Your task to perform on an android device: Go to eBay Image 0: 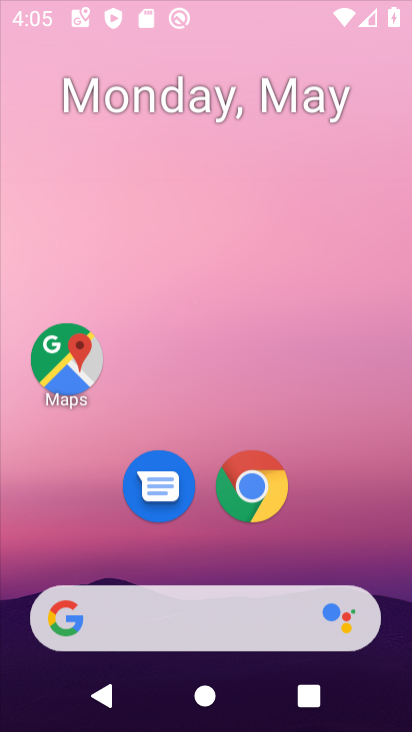
Step 0: click (174, 172)
Your task to perform on an android device: Go to eBay Image 1: 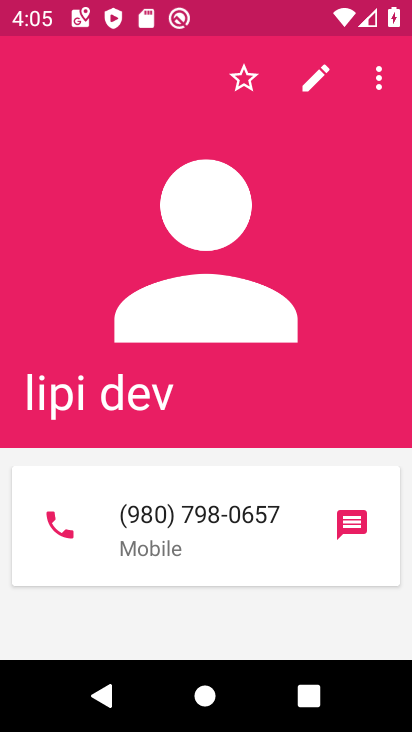
Step 1: press home button
Your task to perform on an android device: Go to eBay Image 2: 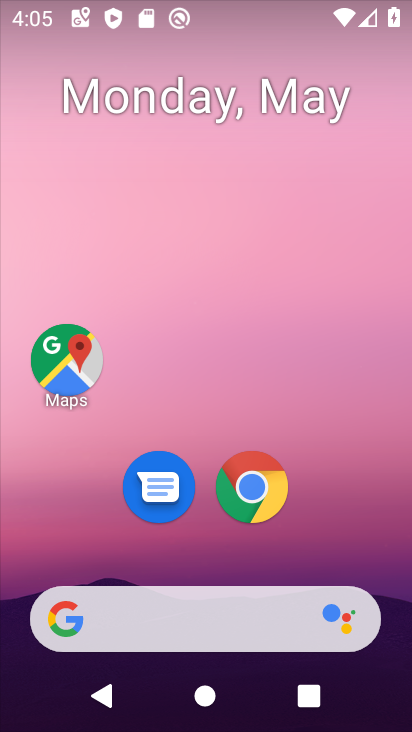
Step 2: click (261, 493)
Your task to perform on an android device: Go to eBay Image 3: 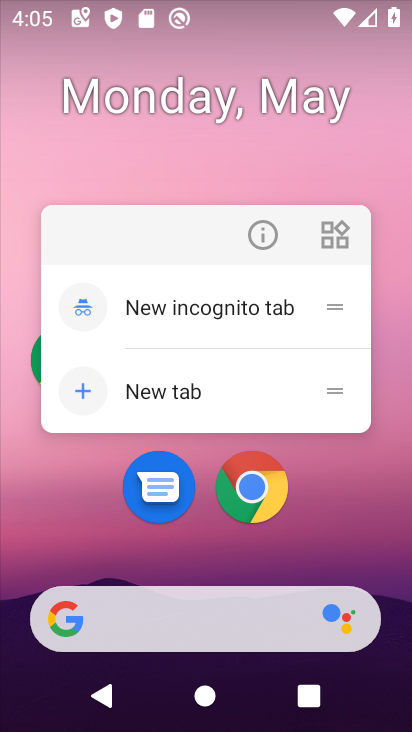
Step 3: click (260, 493)
Your task to perform on an android device: Go to eBay Image 4: 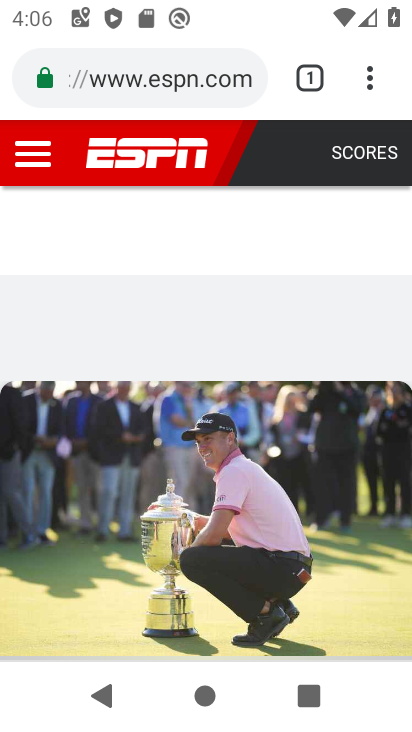
Step 4: click (313, 71)
Your task to perform on an android device: Go to eBay Image 5: 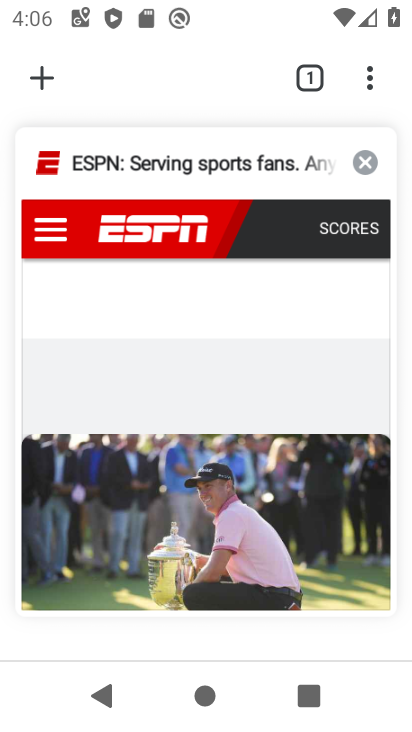
Step 5: click (363, 159)
Your task to perform on an android device: Go to eBay Image 6: 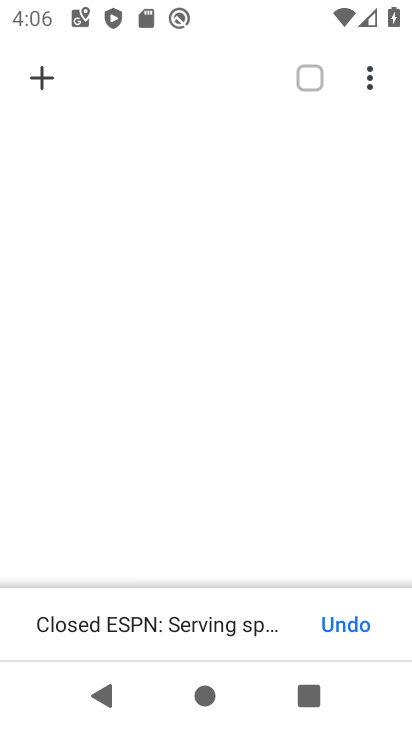
Step 6: click (26, 87)
Your task to perform on an android device: Go to eBay Image 7: 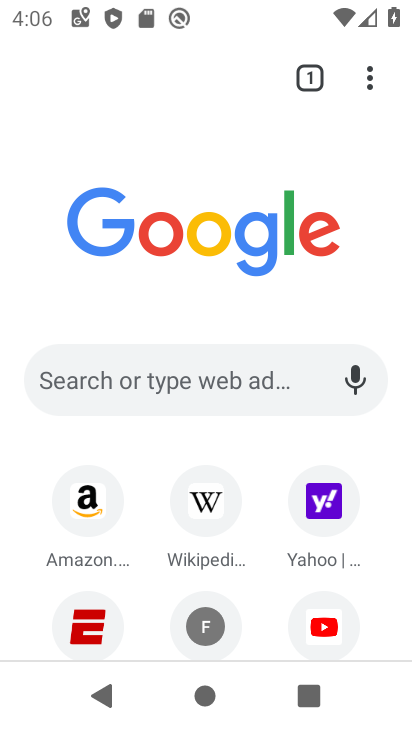
Step 7: drag from (254, 641) to (250, 292)
Your task to perform on an android device: Go to eBay Image 8: 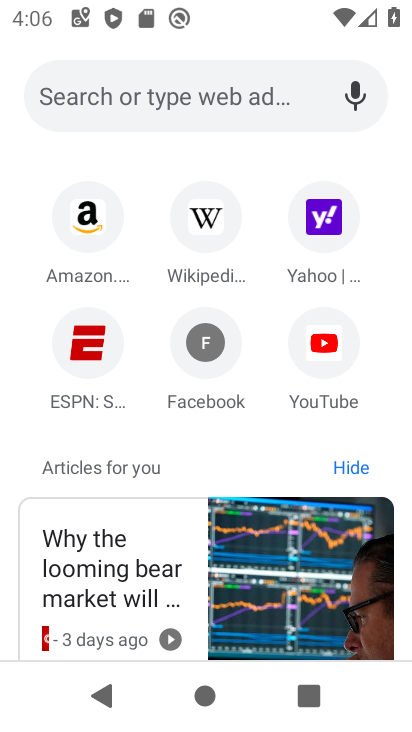
Step 8: click (179, 96)
Your task to perform on an android device: Go to eBay Image 9: 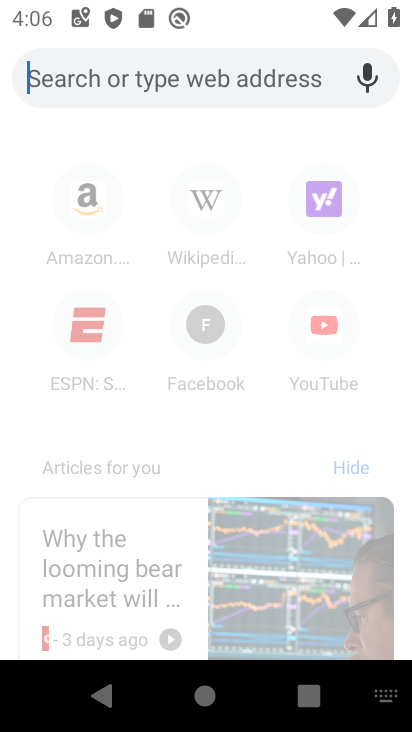
Step 9: type "ebay"
Your task to perform on an android device: Go to eBay Image 10: 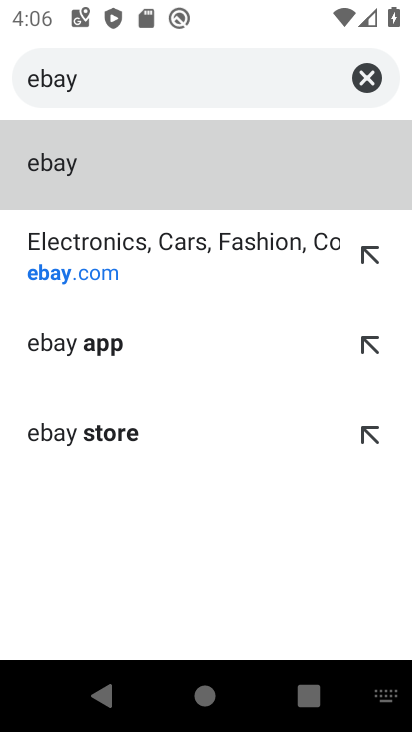
Step 10: click (106, 274)
Your task to perform on an android device: Go to eBay Image 11: 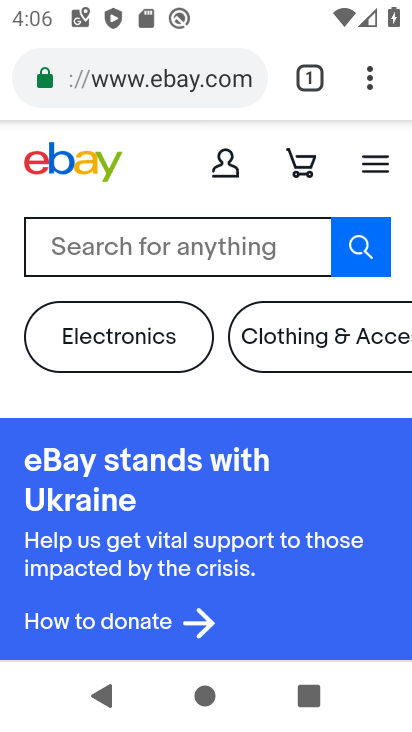
Step 11: task complete